Your task to perform on an android device: open app "Gmail" (install if not already installed) and go to login screen Image 0: 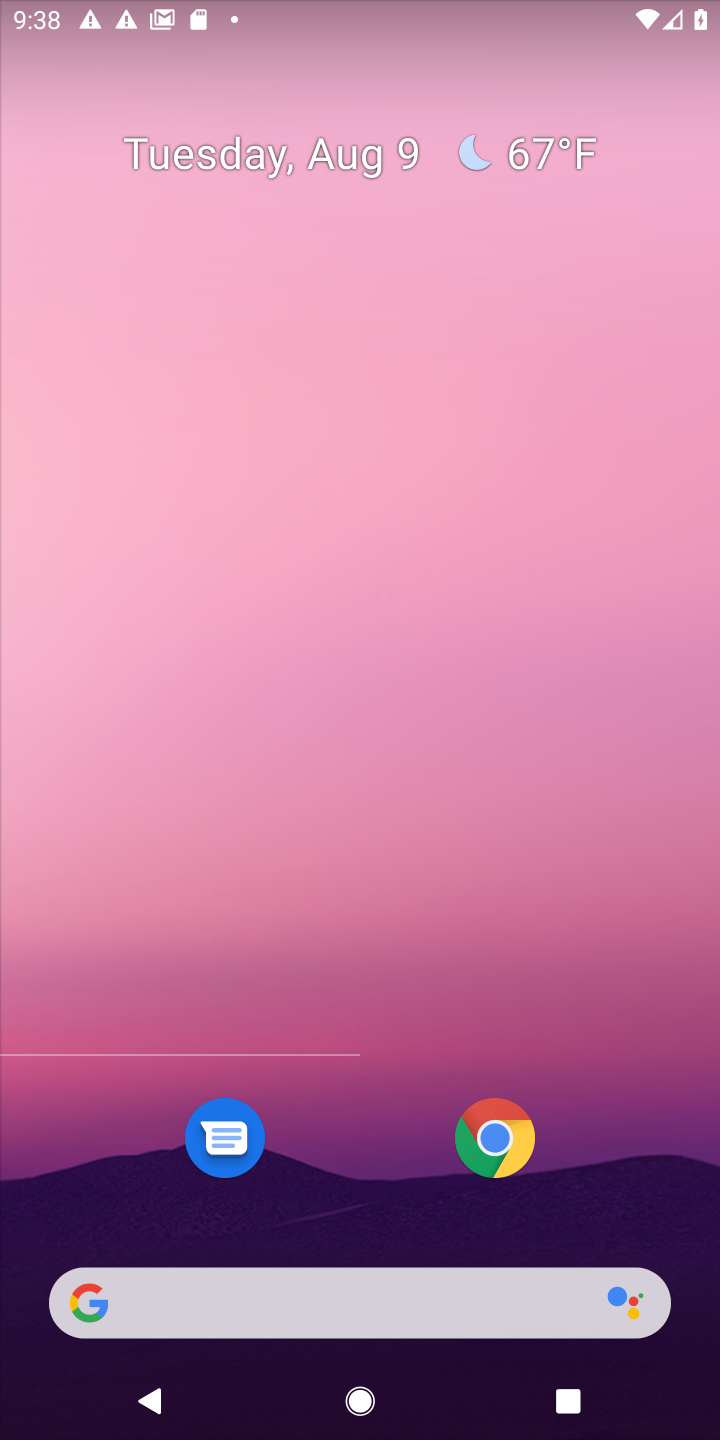
Step 0: press home button
Your task to perform on an android device: open app "Gmail" (install if not already installed) and go to login screen Image 1: 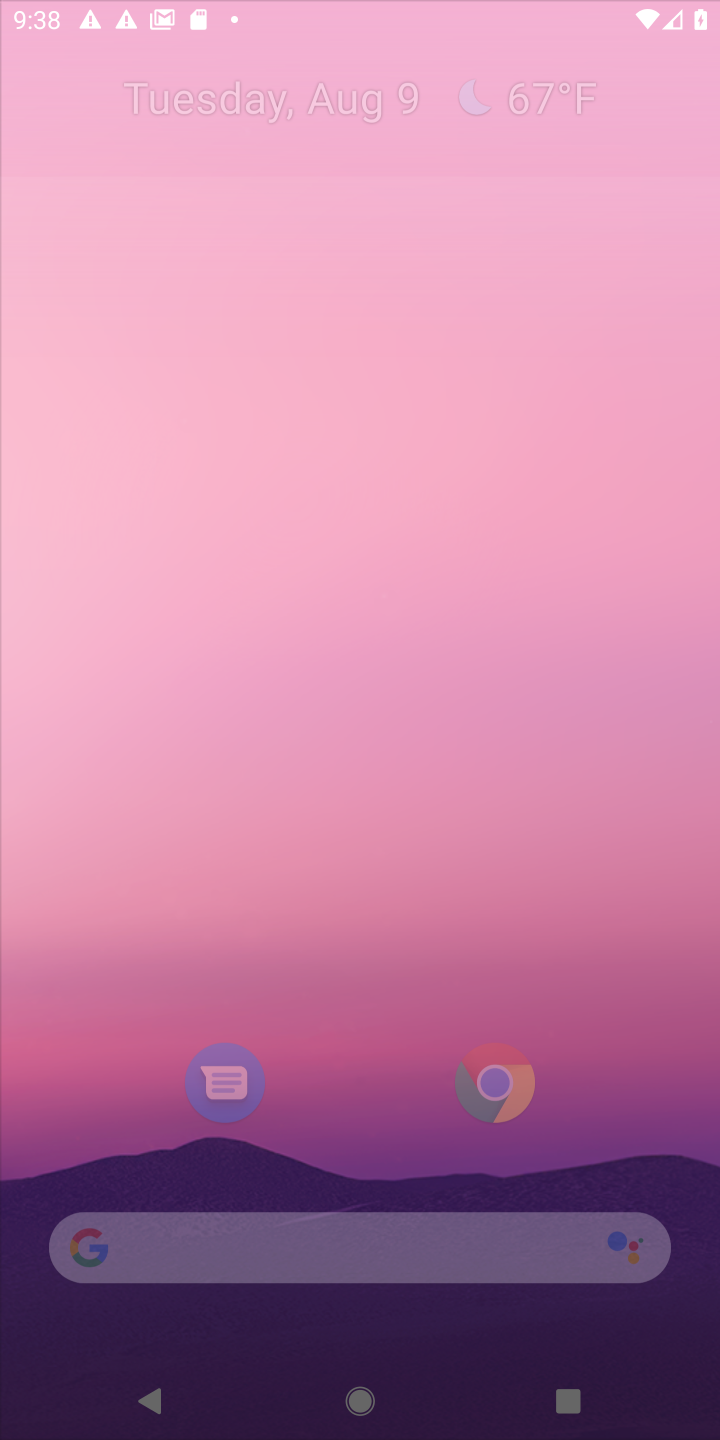
Step 1: press home button
Your task to perform on an android device: open app "Gmail" (install if not already installed) and go to login screen Image 2: 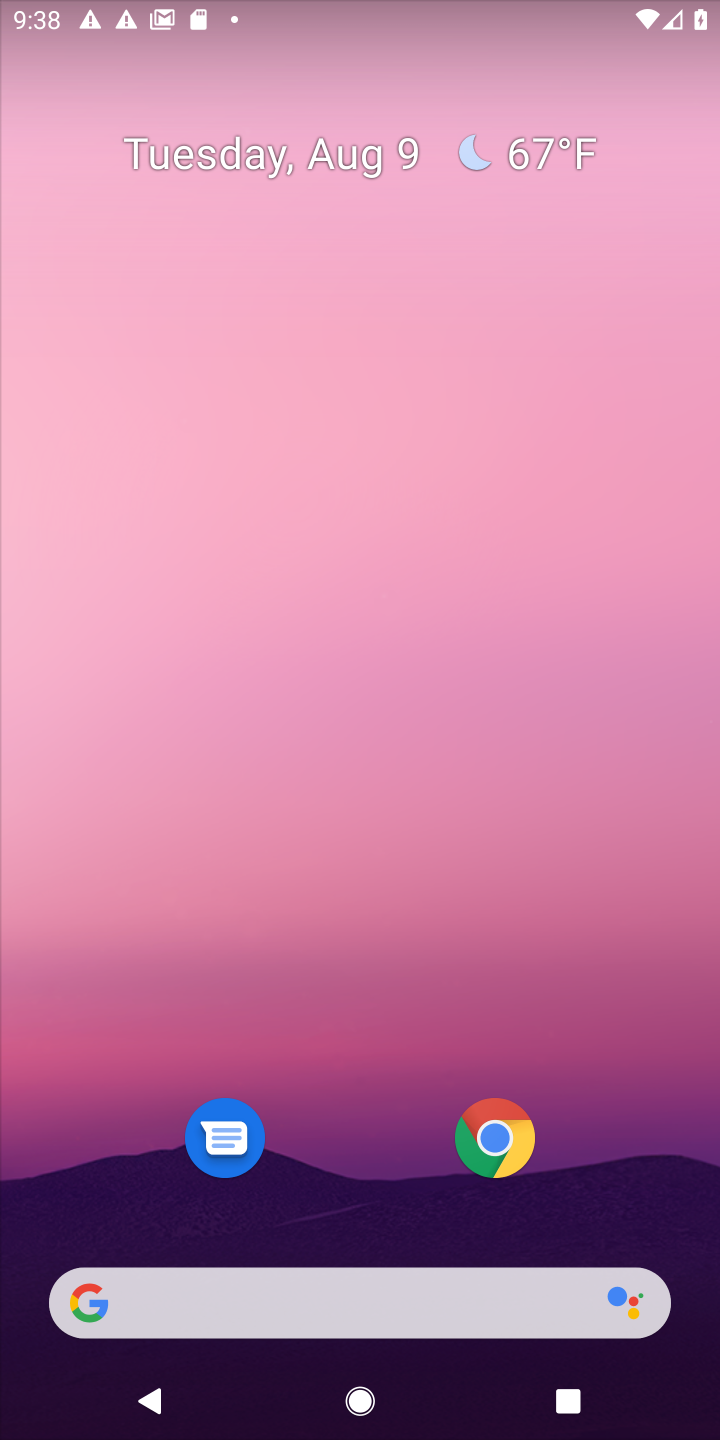
Step 2: drag from (378, 1202) to (379, 184)
Your task to perform on an android device: open app "Gmail" (install if not already installed) and go to login screen Image 3: 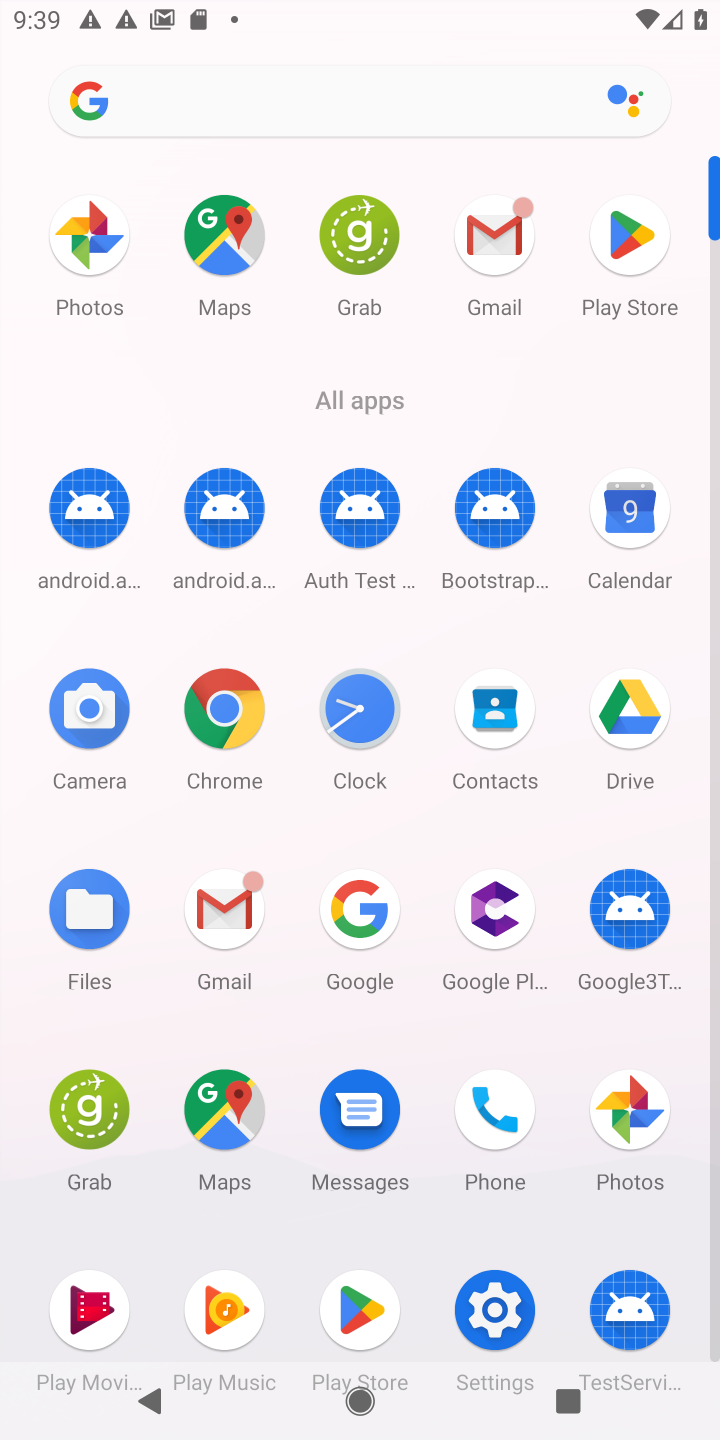
Step 3: click (356, 1293)
Your task to perform on an android device: open app "Gmail" (install if not already installed) and go to login screen Image 4: 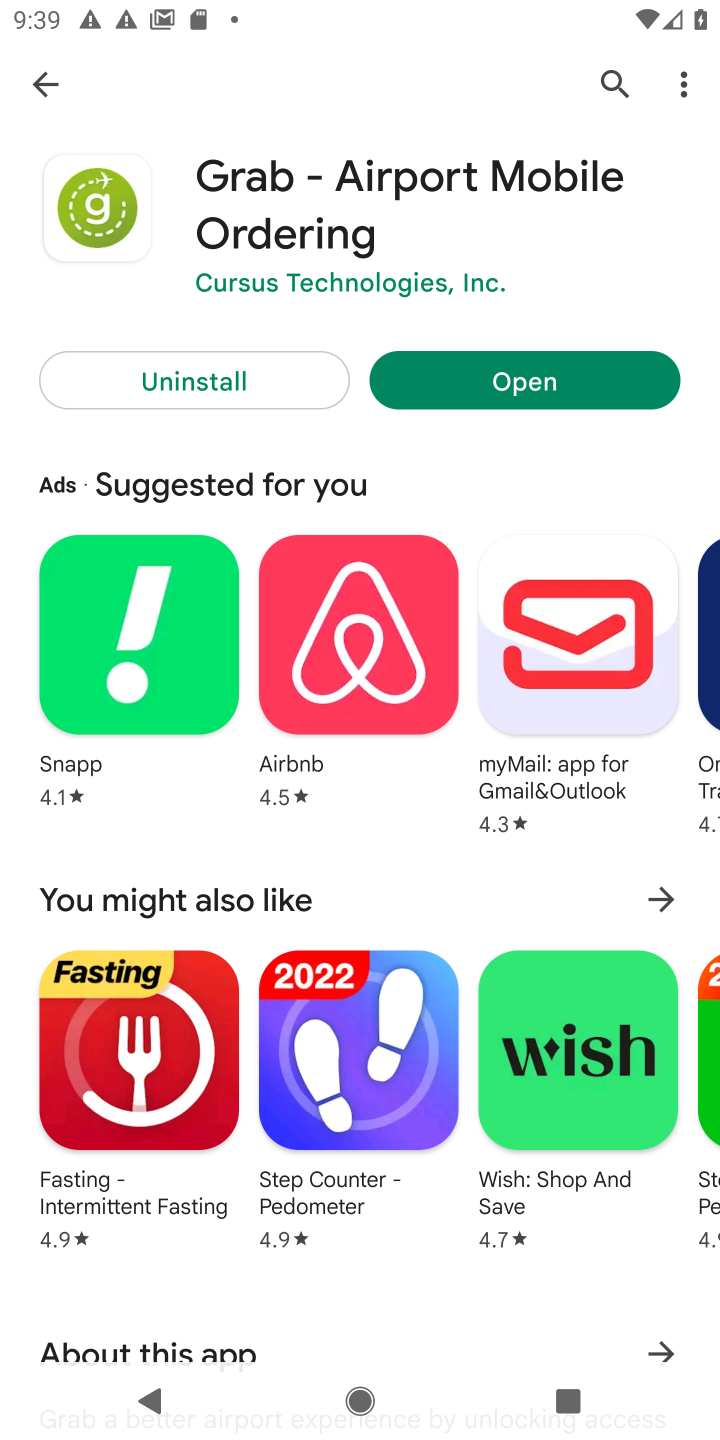
Step 4: click (596, 89)
Your task to perform on an android device: open app "Gmail" (install if not already installed) and go to login screen Image 5: 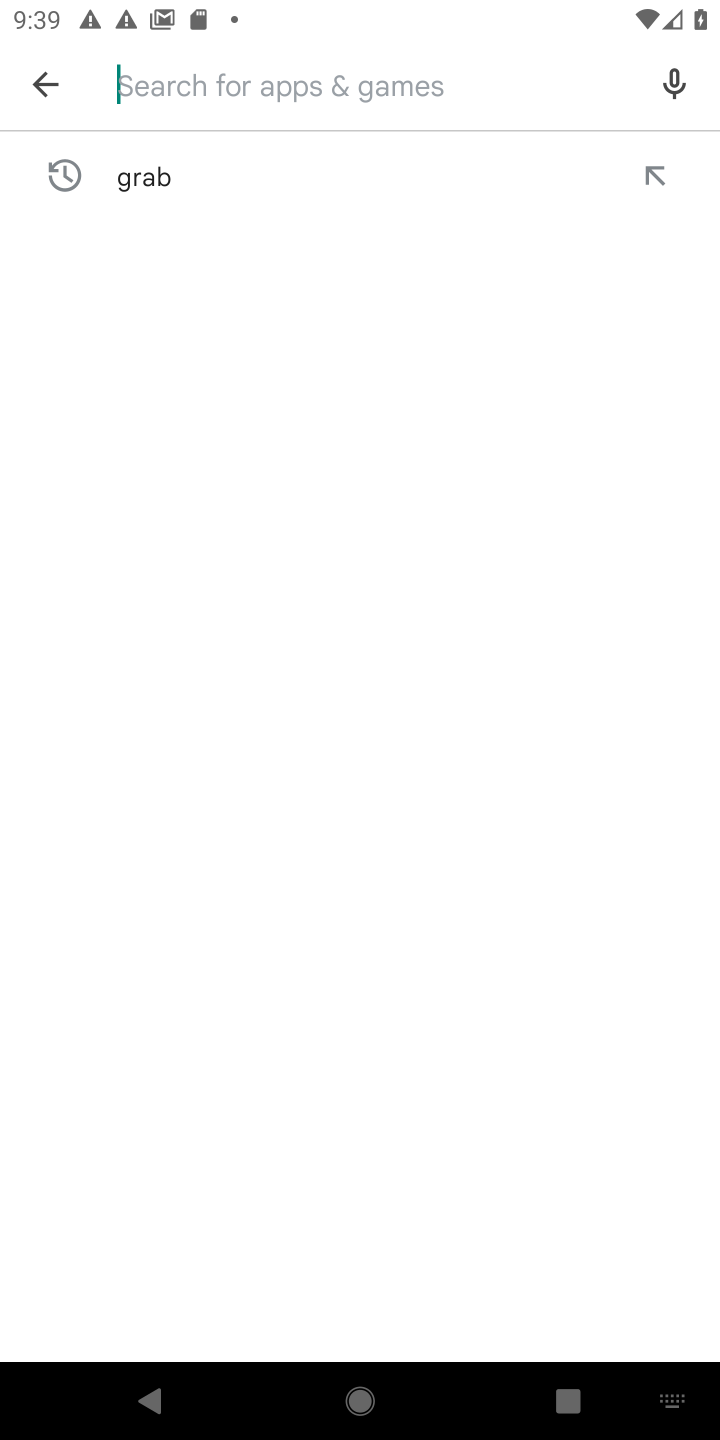
Step 5: type "Gmail"
Your task to perform on an android device: open app "Gmail" (install if not already installed) and go to login screen Image 6: 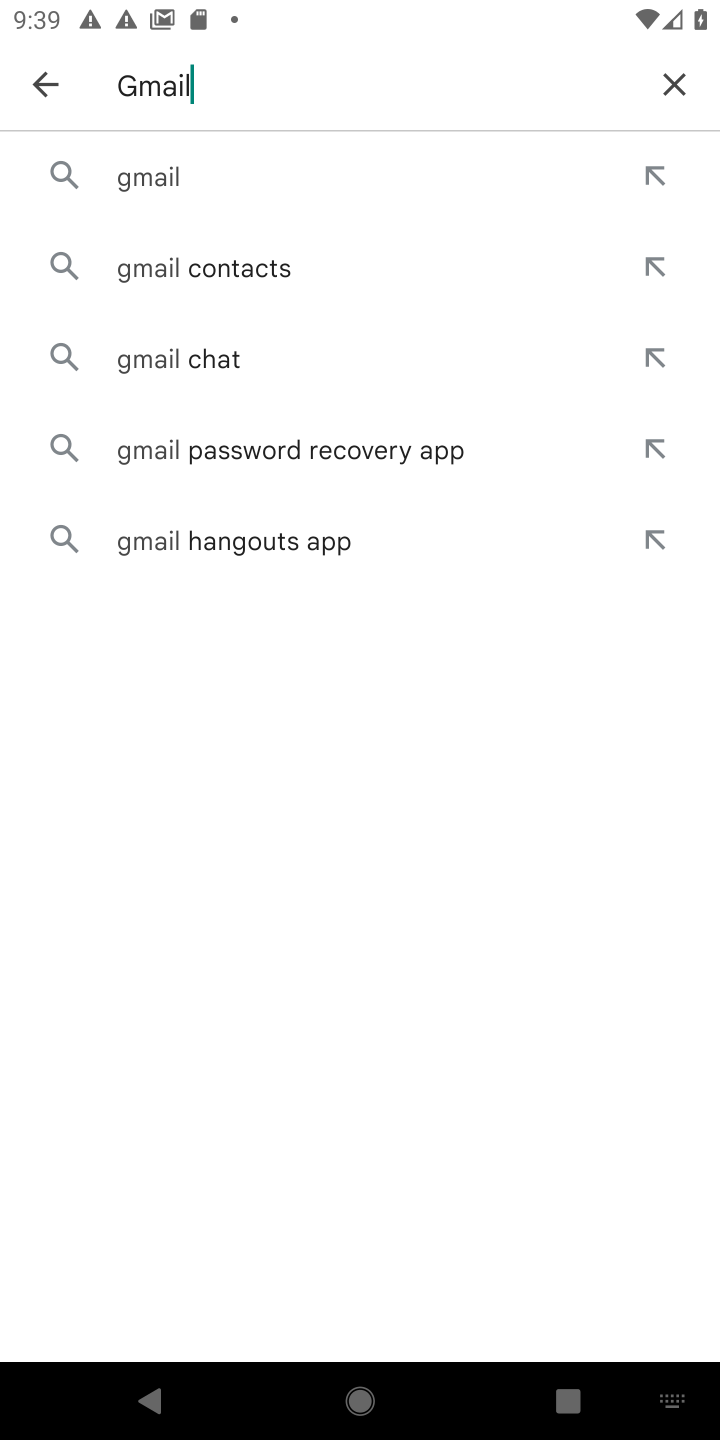
Step 6: click (191, 169)
Your task to perform on an android device: open app "Gmail" (install if not already installed) and go to login screen Image 7: 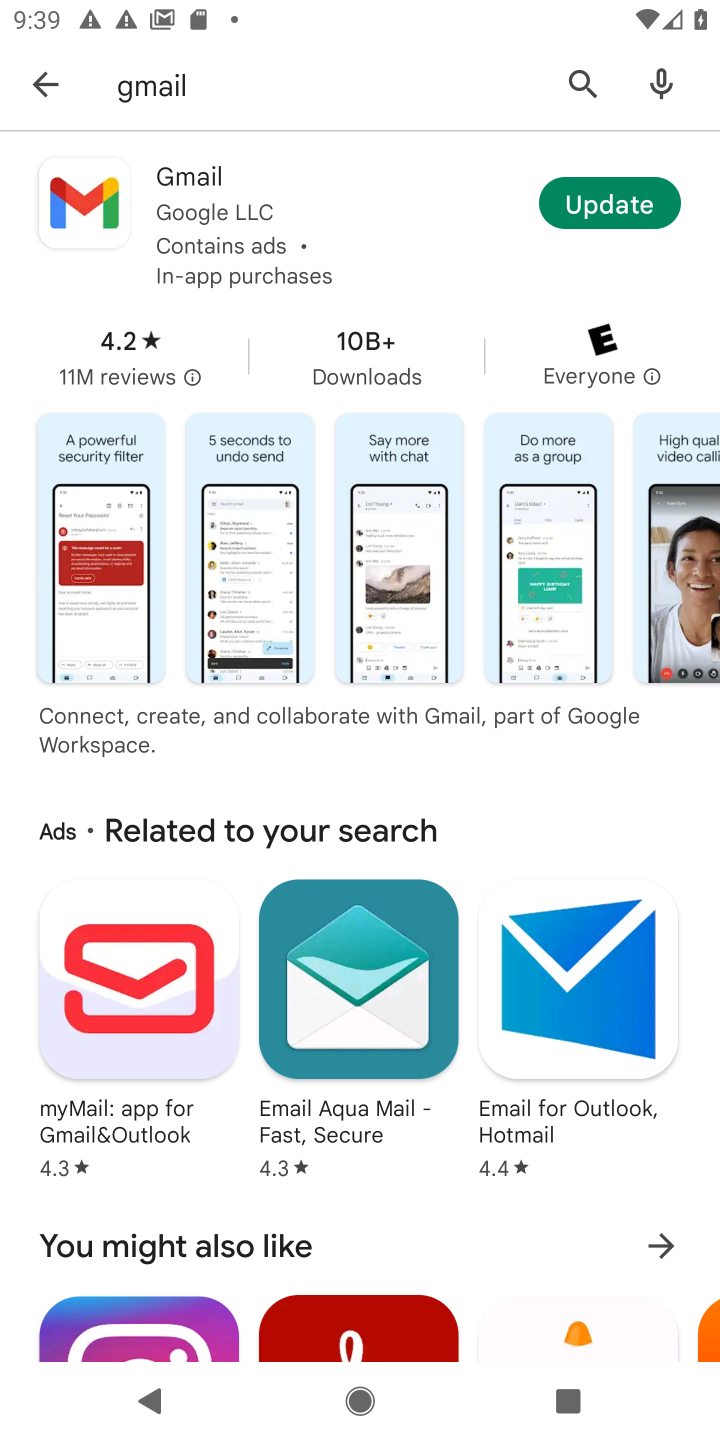
Step 7: click (617, 197)
Your task to perform on an android device: open app "Gmail" (install if not already installed) and go to login screen Image 8: 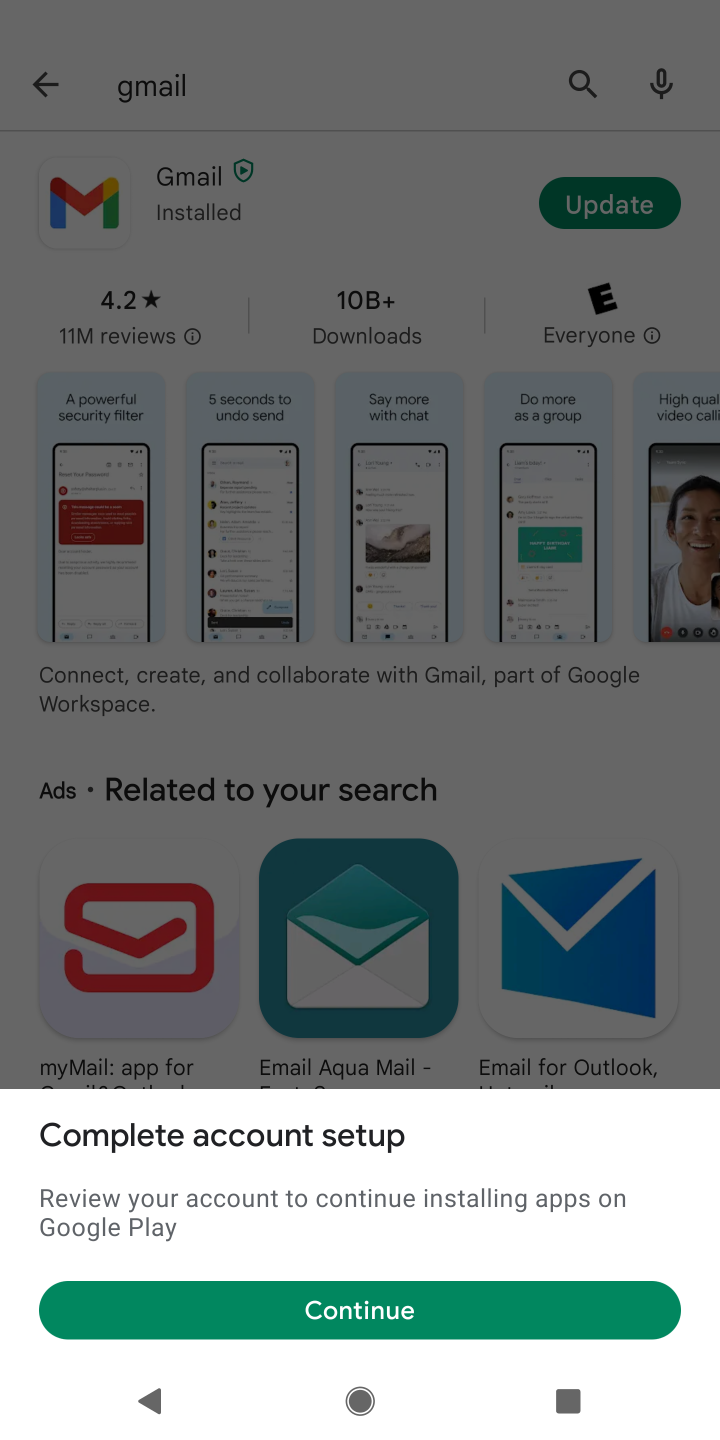
Step 8: click (367, 1322)
Your task to perform on an android device: open app "Gmail" (install if not already installed) and go to login screen Image 9: 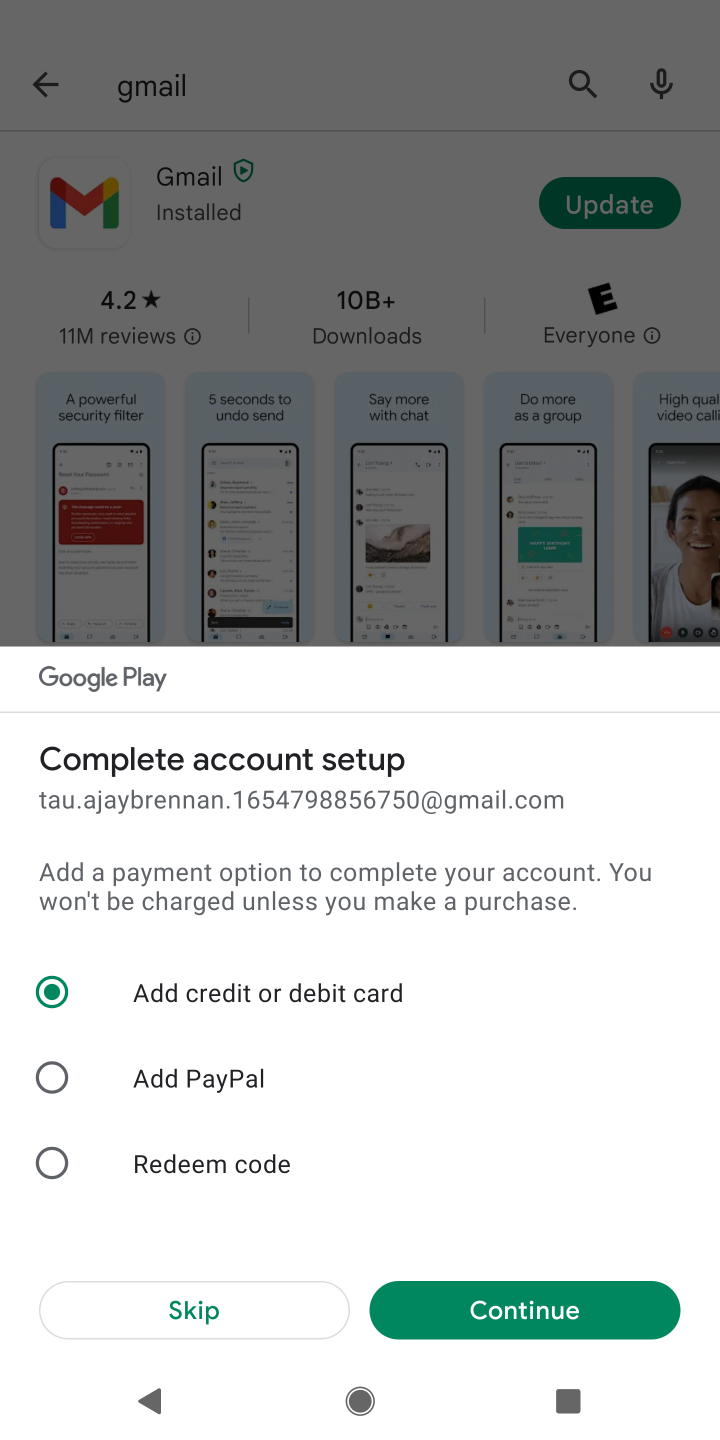
Step 9: click (173, 1307)
Your task to perform on an android device: open app "Gmail" (install if not already installed) and go to login screen Image 10: 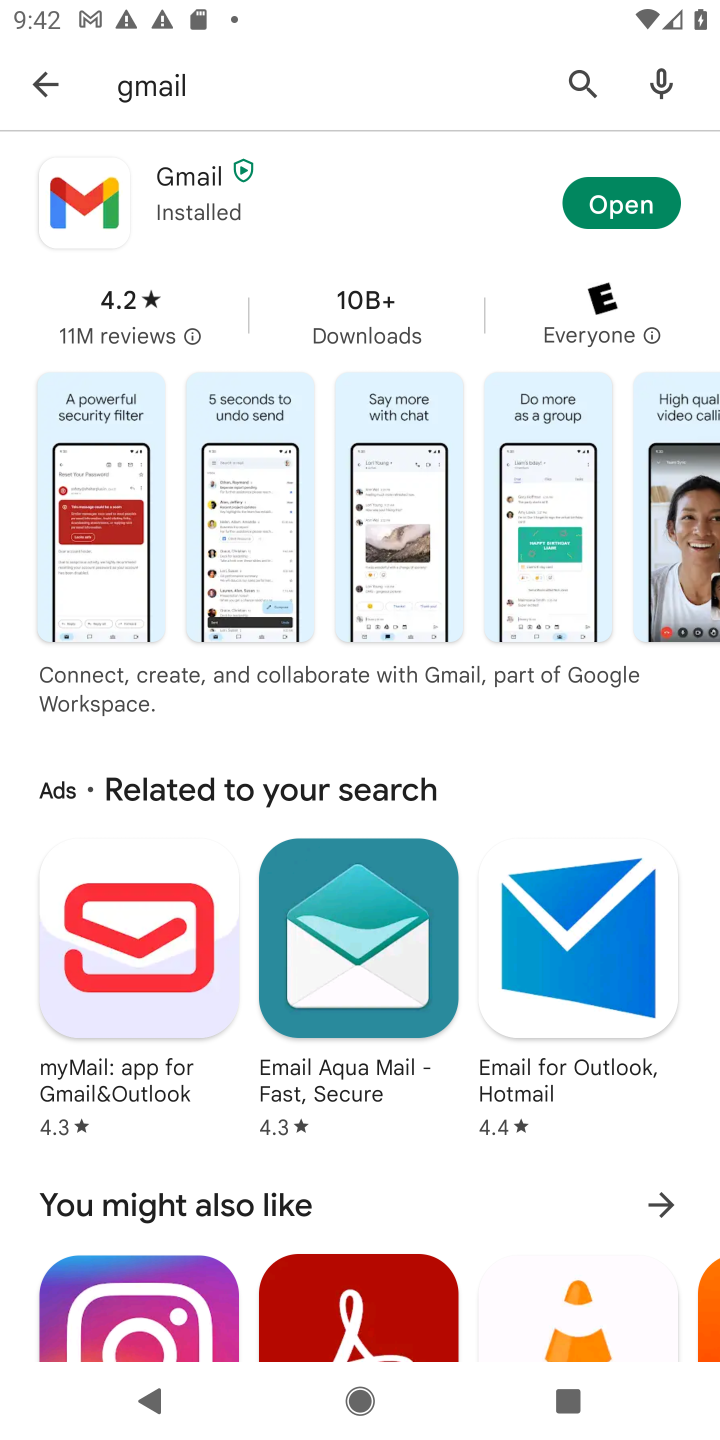
Step 10: click (622, 192)
Your task to perform on an android device: open app "Gmail" (install if not already installed) and go to login screen Image 11: 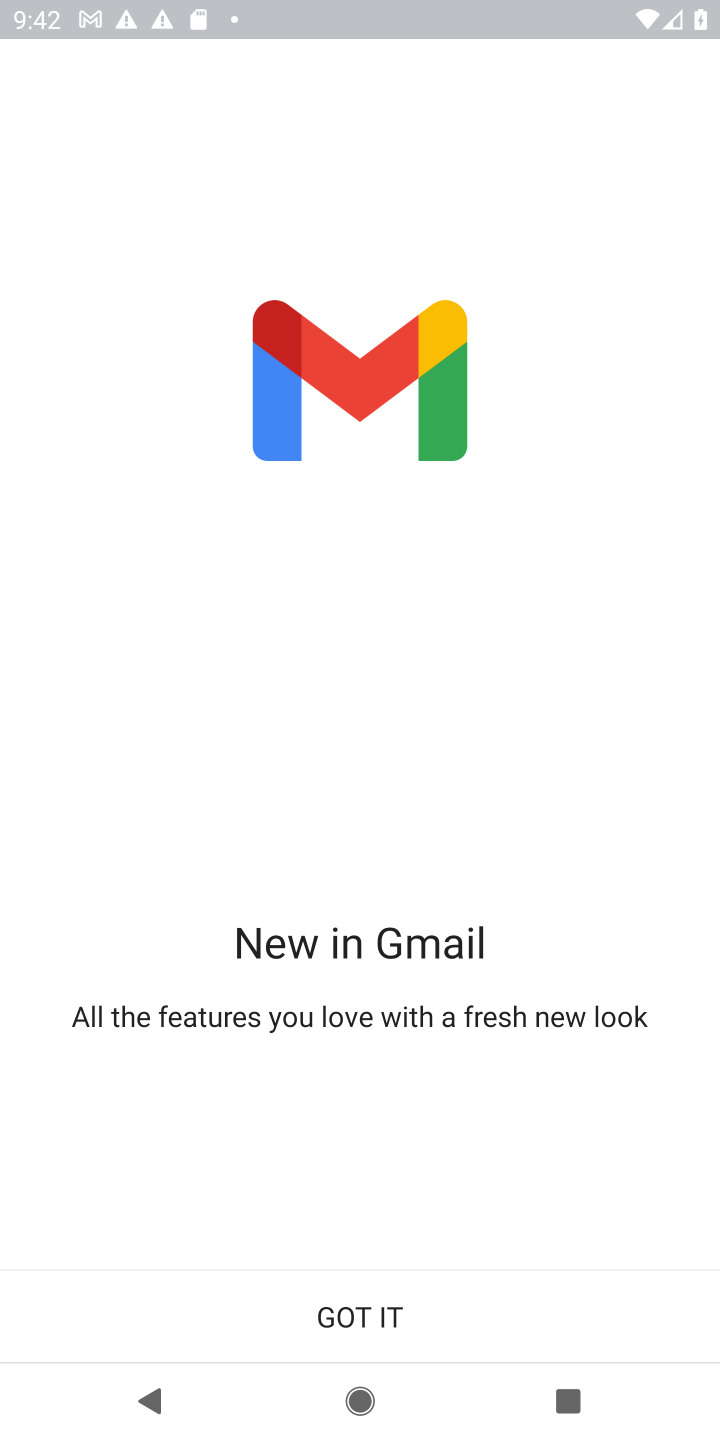
Step 11: click (337, 1297)
Your task to perform on an android device: open app "Gmail" (install if not already installed) and go to login screen Image 12: 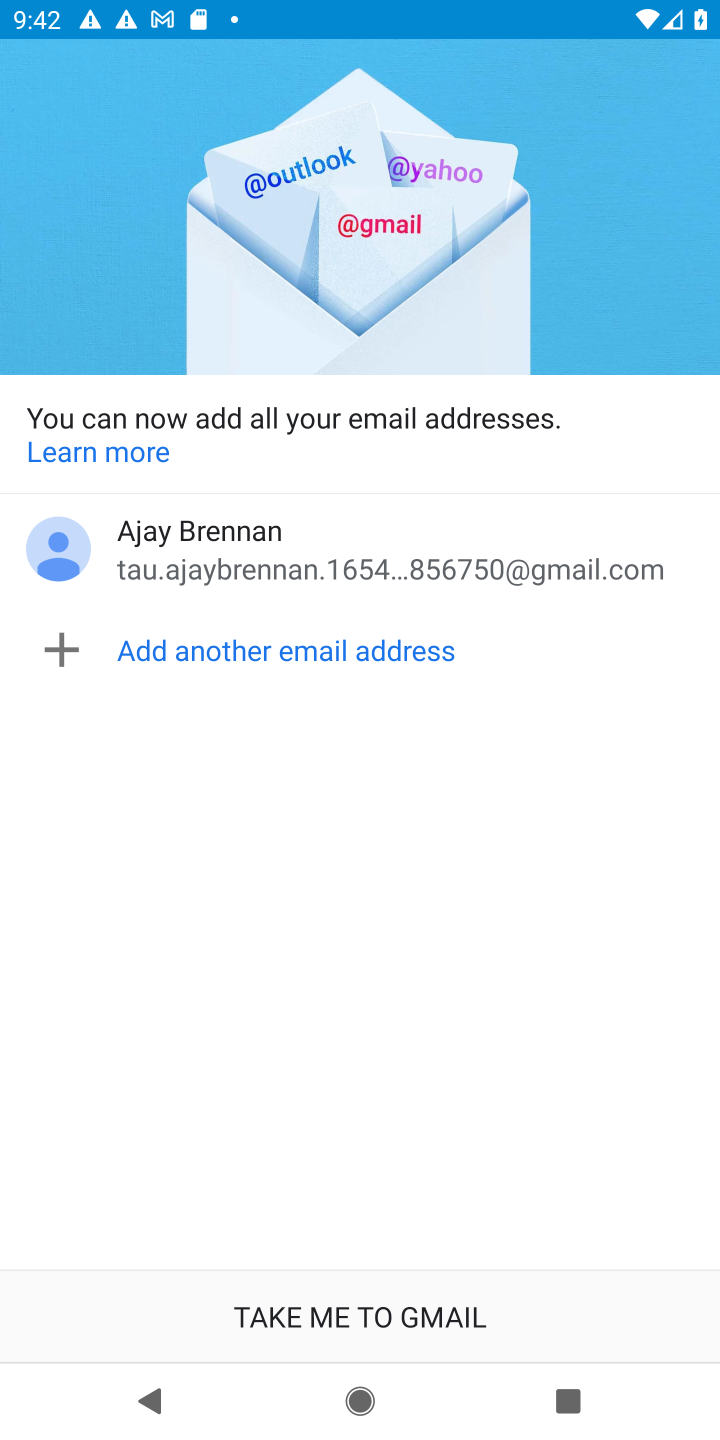
Step 12: click (349, 1313)
Your task to perform on an android device: open app "Gmail" (install if not already installed) and go to login screen Image 13: 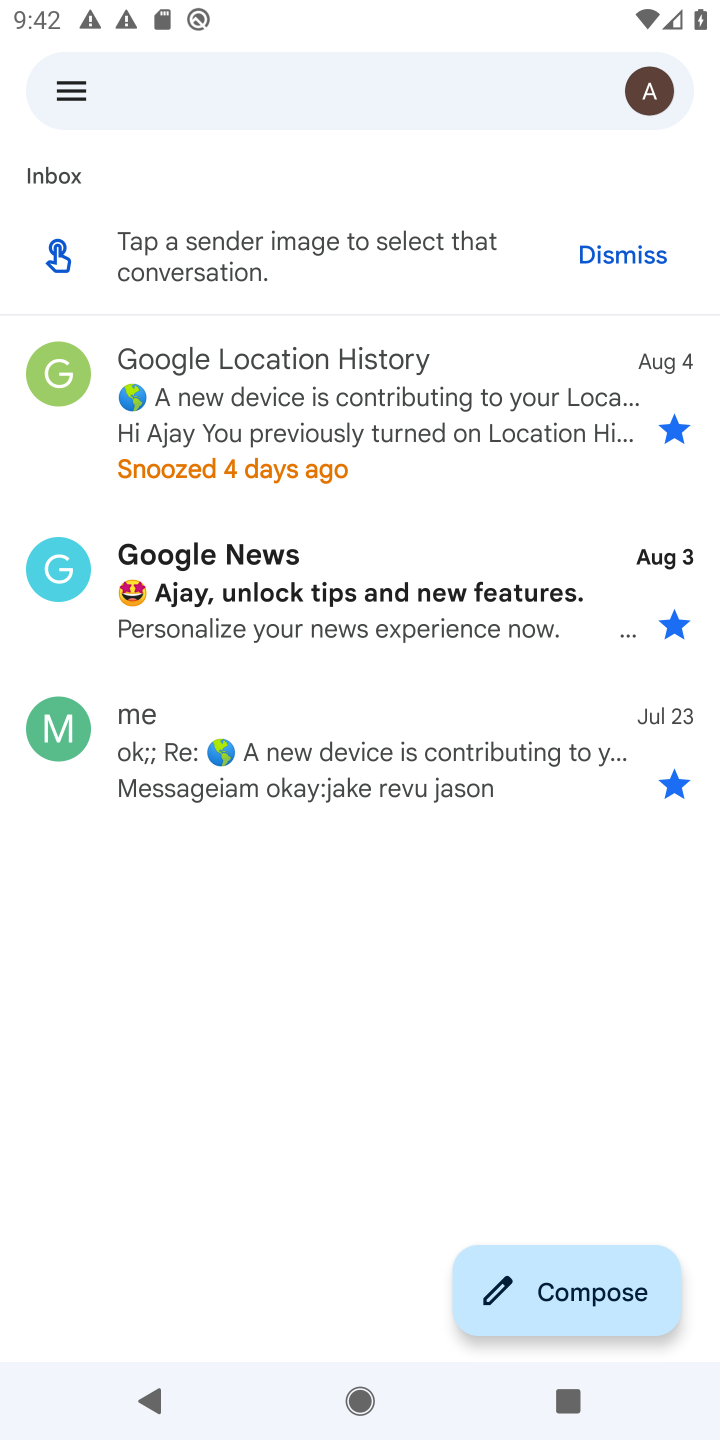
Step 13: task complete